Your task to perform on an android device: star an email in the gmail app Image 0: 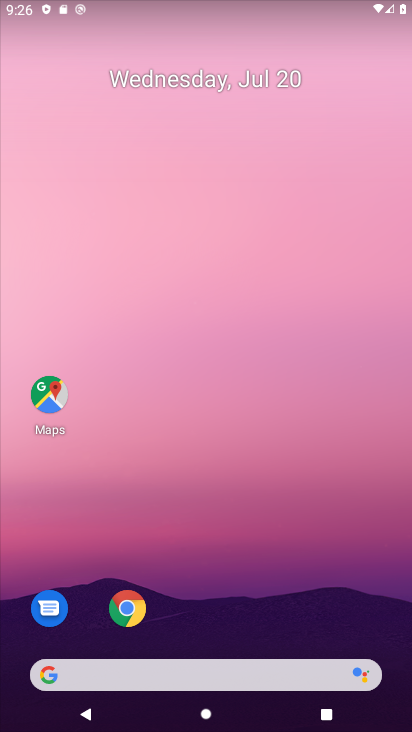
Step 0: drag from (242, 567) to (190, 107)
Your task to perform on an android device: star an email in the gmail app Image 1: 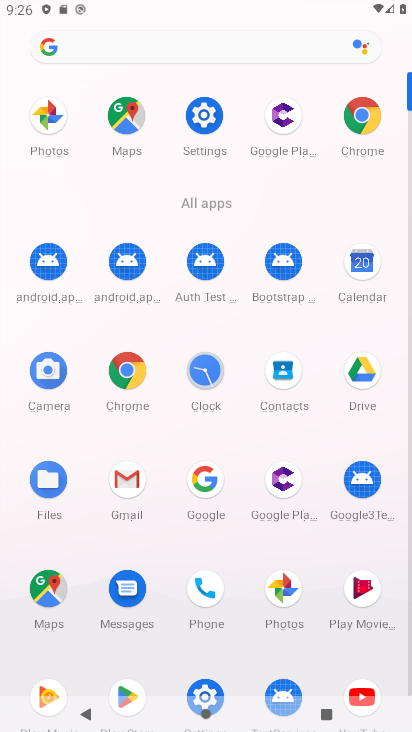
Step 1: click (119, 488)
Your task to perform on an android device: star an email in the gmail app Image 2: 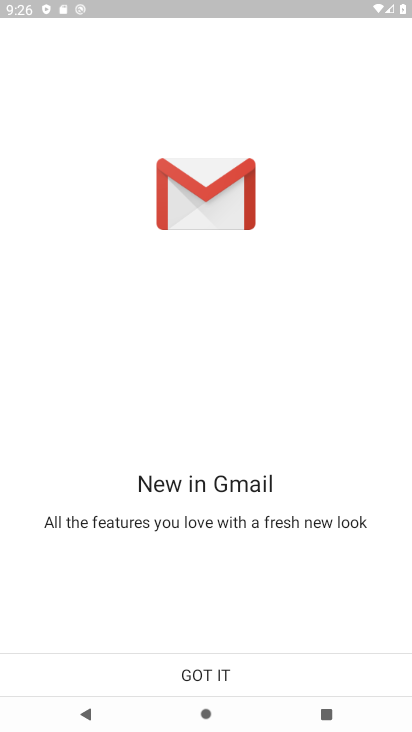
Step 2: click (124, 482)
Your task to perform on an android device: star an email in the gmail app Image 3: 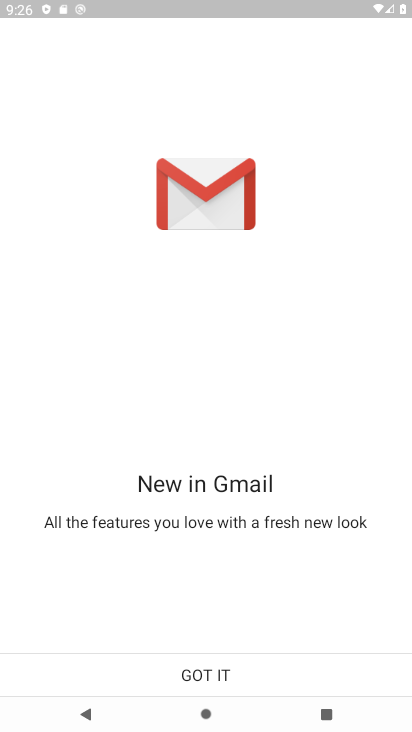
Step 3: click (215, 671)
Your task to perform on an android device: star an email in the gmail app Image 4: 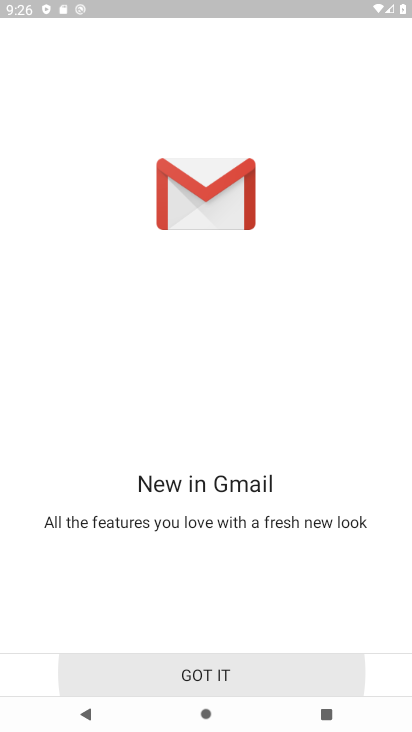
Step 4: click (215, 671)
Your task to perform on an android device: star an email in the gmail app Image 5: 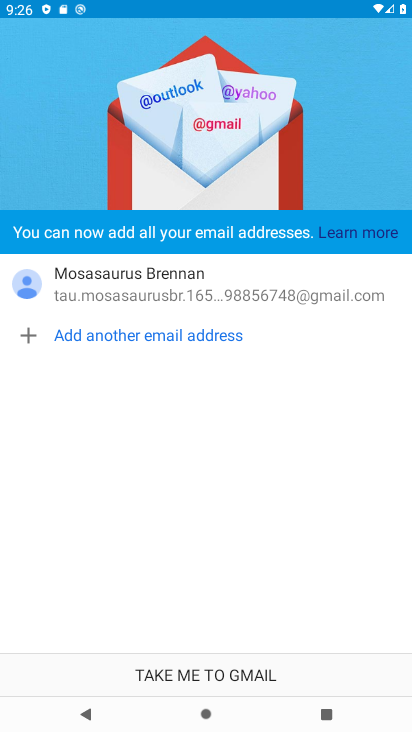
Step 5: click (215, 671)
Your task to perform on an android device: star an email in the gmail app Image 6: 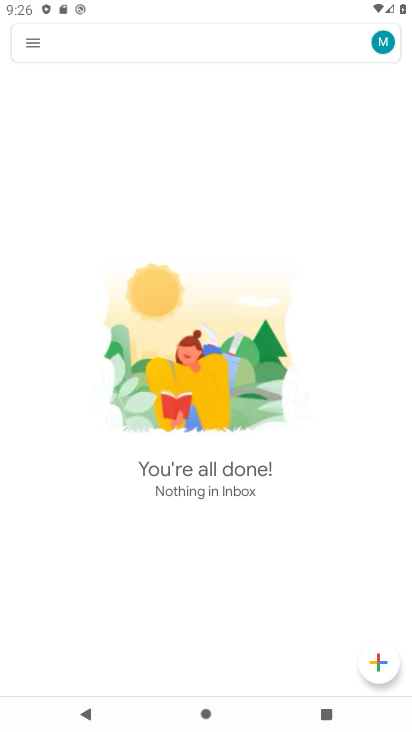
Step 6: click (31, 39)
Your task to perform on an android device: star an email in the gmail app Image 7: 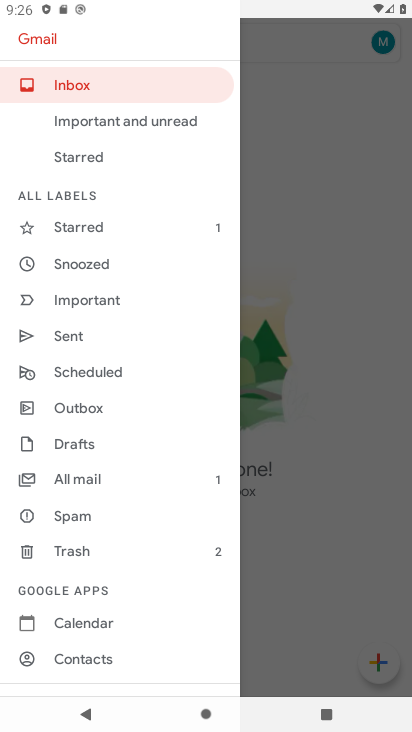
Step 7: click (65, 474)
Your task to perform on an android device: star an email in the gmail app Image 8: 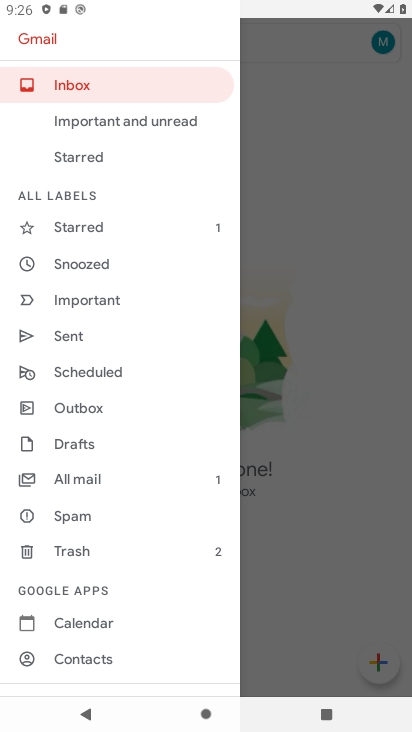
Step 8: click (65, 474)
Your task to perform on an android device: star an email in the gmail app Image 9: 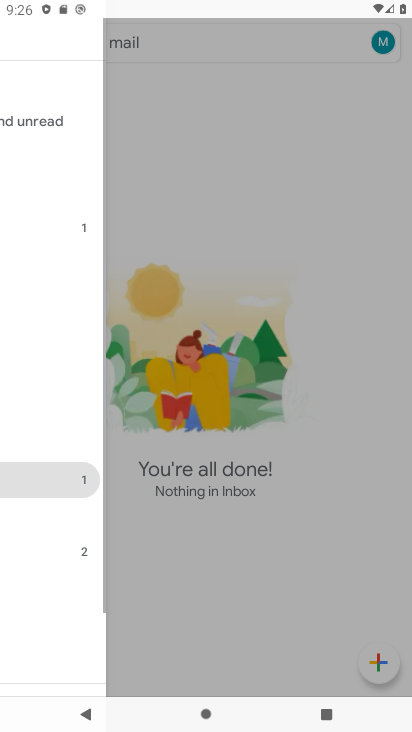
Step 9: click (65, 474)
Your task to perform on an android device: star an email in the gmail app Image 10: 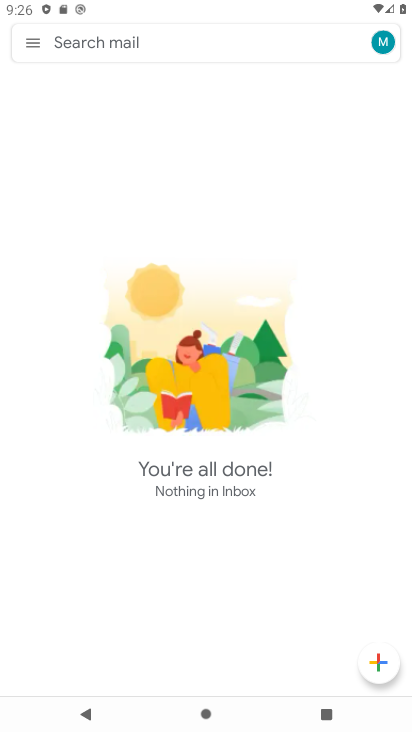
Step 10: click (65, 475)
Your task to perform on an android device: star an email in the gmail app Image 11: 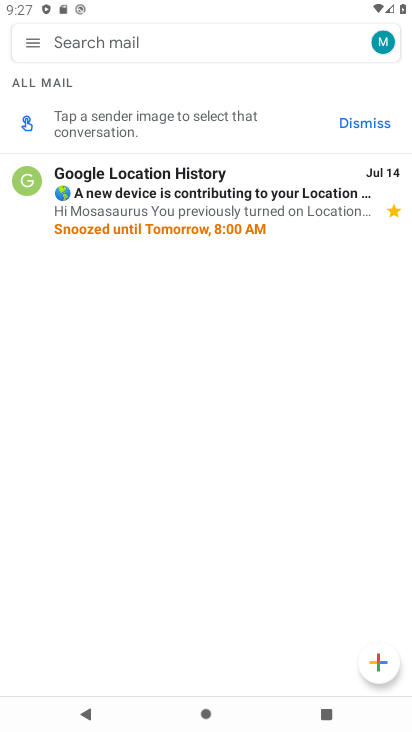
Step 11: task complete